Your task to perform on an android device: turn off airplane mode Image 0: 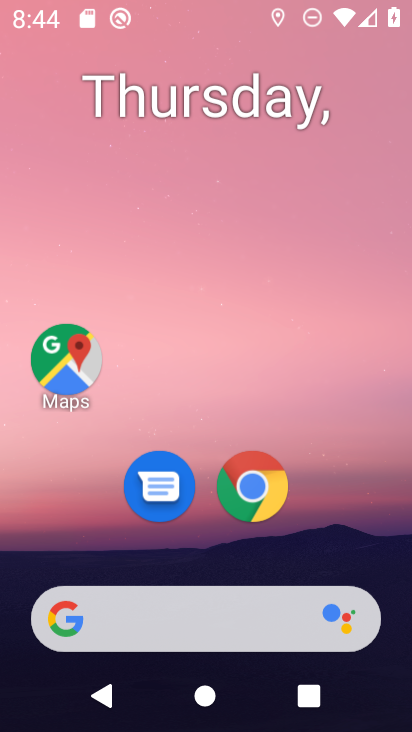
Step 0: click (267, 480)
Your task to perform on an android device: turn off airplane mode Image 1: 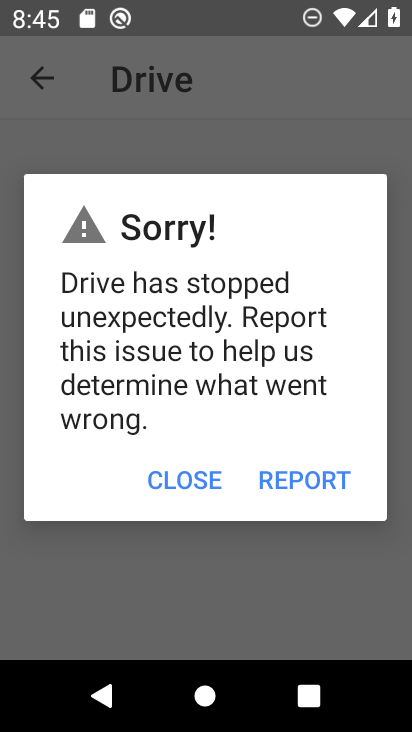
Step 1: click (184, 472)
Your task to perform on an android device: turn off airplane mode Image 2: 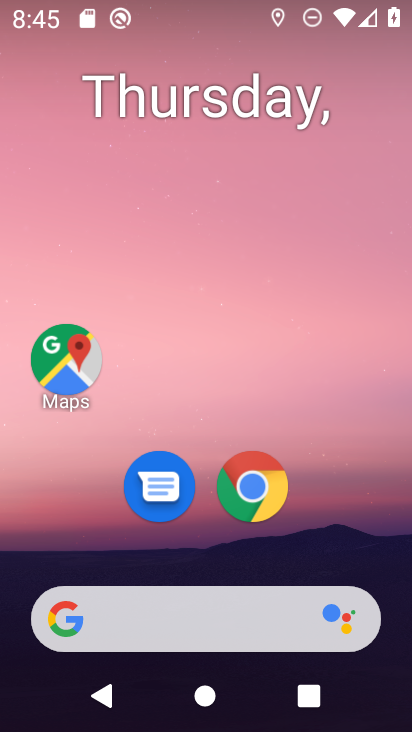
Step 2: task complete